Your task to perform on an android device: find which apps use the phone's location Image 0: 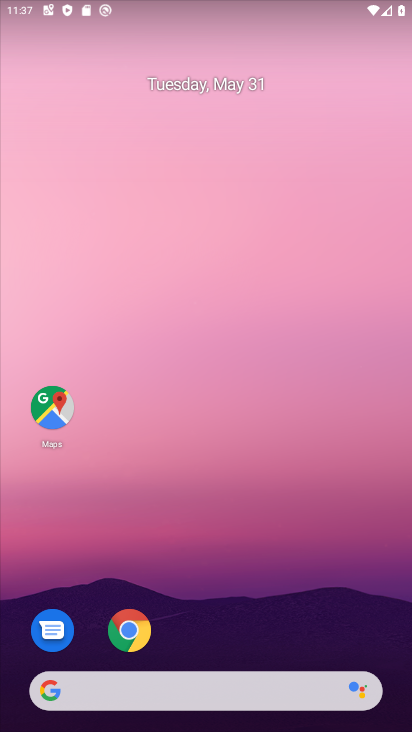
Step 0: press home button
Your task to perform on an android device: find which apps use the phone's location Image 1: 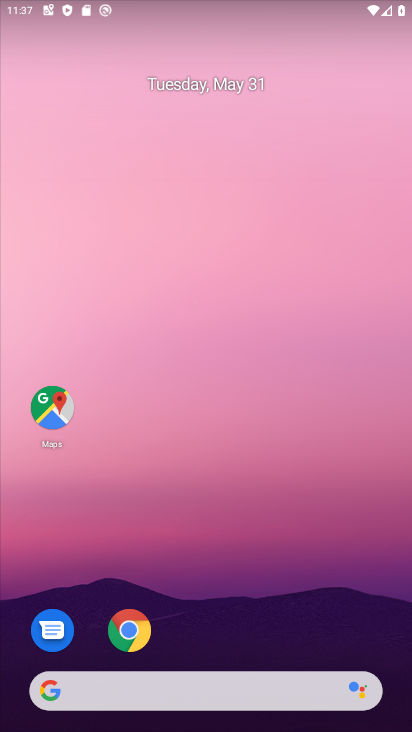
Step 1: drag from (314, 443) to (314, 113)
Your task to perform on an android device: find which apps use the phone's location Image 2: 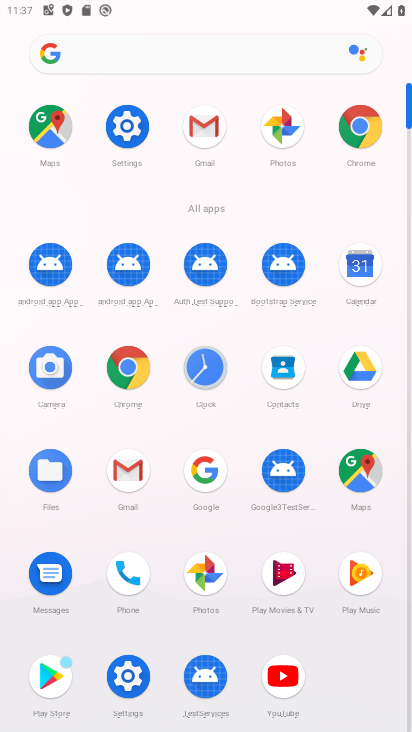
Step 2: click (134, 135)
Your task to perform on an android device: find which apps use the phone's location Image 3: 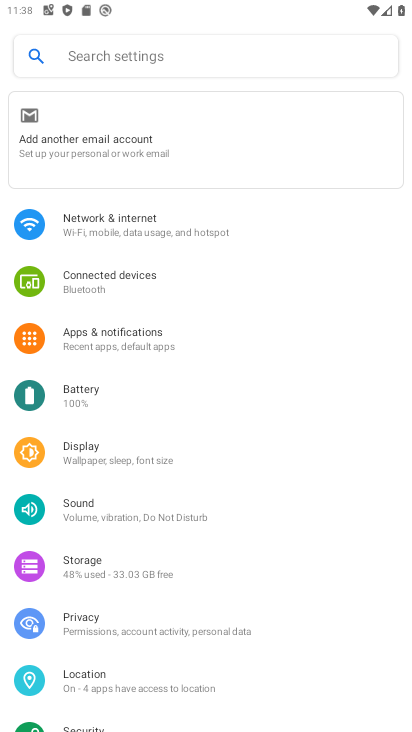
Step 3: click (188, 676)
Your task to perform on an android device: find which apps use the phone's location Image 4: 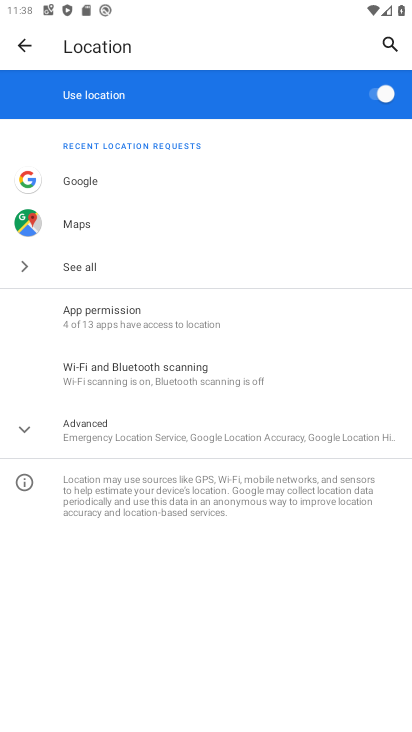
Step 4: click (146, 322)
Your task to perform on an android device: find which apps use the phone's location Image 5: 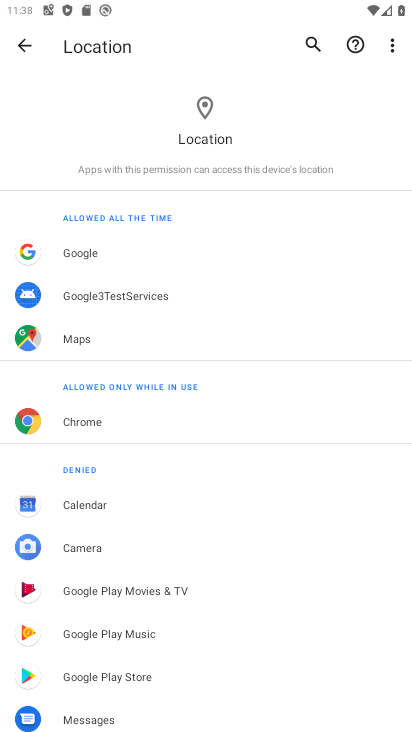
Step 5: task complete